Your task to perform on an android device: Install the Facebook app Image 0: 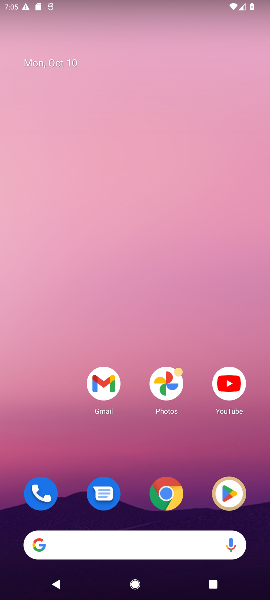
Step 0: click (228, 492)
Your task to perform on an android device: Install the Facebook app Image 1: 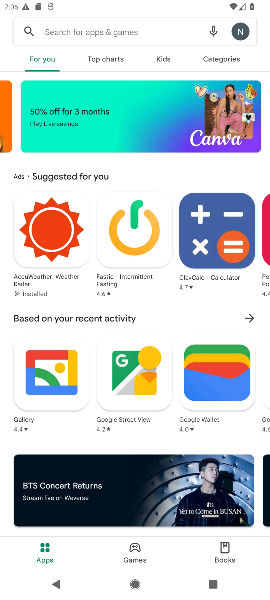
Step 1: click (94, 31)
Your task to perform on an android device: Install the Facebook app Image 2: 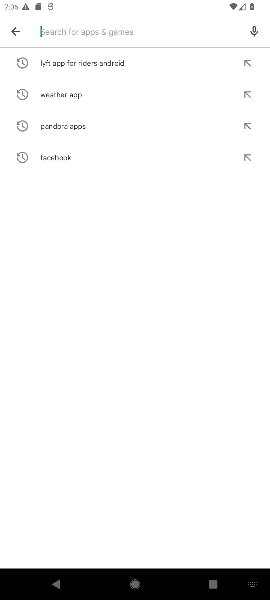
Step 2: press home button
Your task to perform on an android device: Install the Facebook app Image 3: 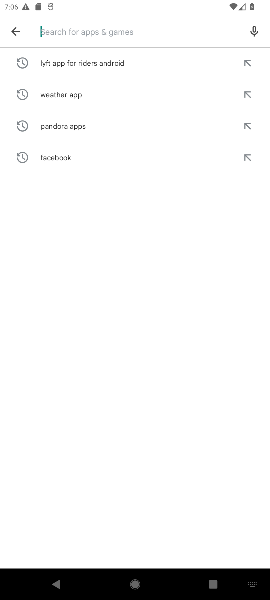
Step 3: type "Facebook app"
Your task to perform on an android device: Install the Facebook app Image 4: 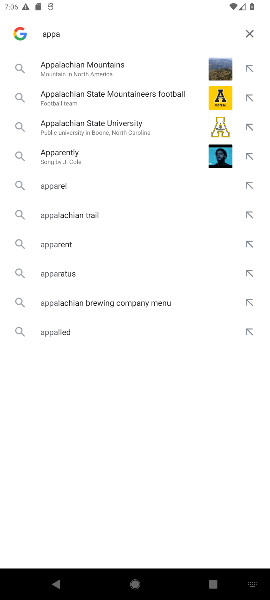
Step 4: press home button
Your task to perform on an android device: Install the Facebook app Image 5: 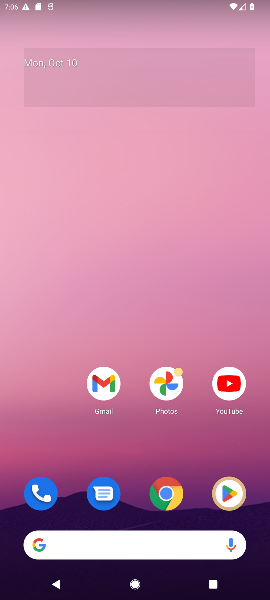
Step 5: click (231, 493)
Your task to perform on an android device: Install the Facebook app Image 6: 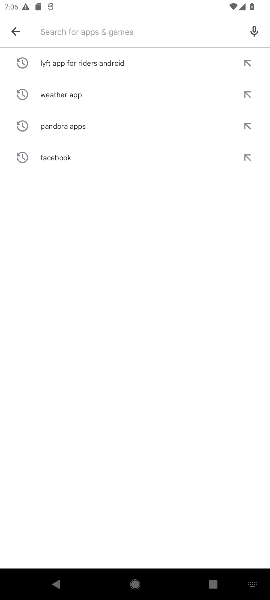
Step 6: type "Facebook app"
Your task to perform on an android device: Install the Facebook app Image 7: 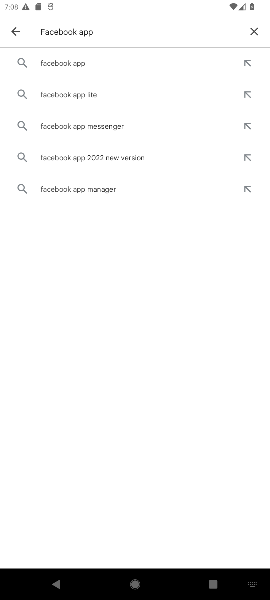
Step 7: click (69, 62)
Your task to perform on an android device: Install the Facebook app Image 8: 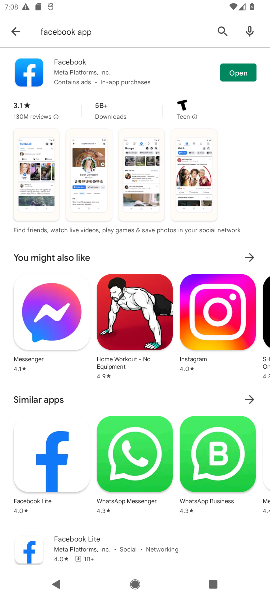
Step 8: click (238, 79)
Your task to perform on an android device: Install the Facebook app Image 9: 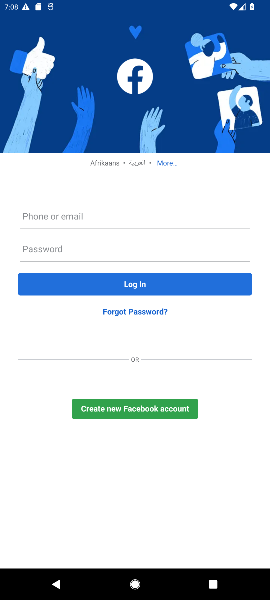
Step 9: task complete